Your task to perform on an android device: turn vacation reply on in the gmail app Image 0: 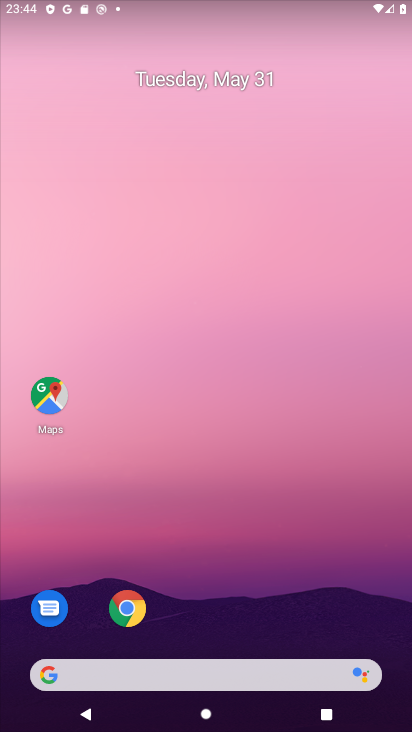
Step 0: drag from (376, 623) to (336, 102)
Your task to perform on an android device: turn vacation reply on in the gmail app Image 1: 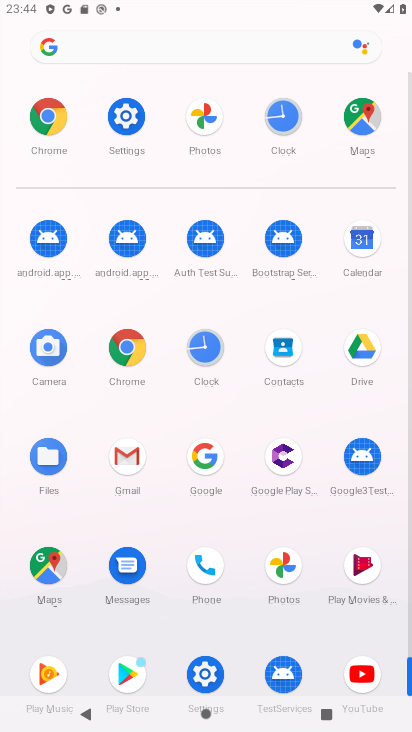
Step 1: click (130, 450)
Your task to perform on an android device: turn vacation reply on in the gmail app Image 2: 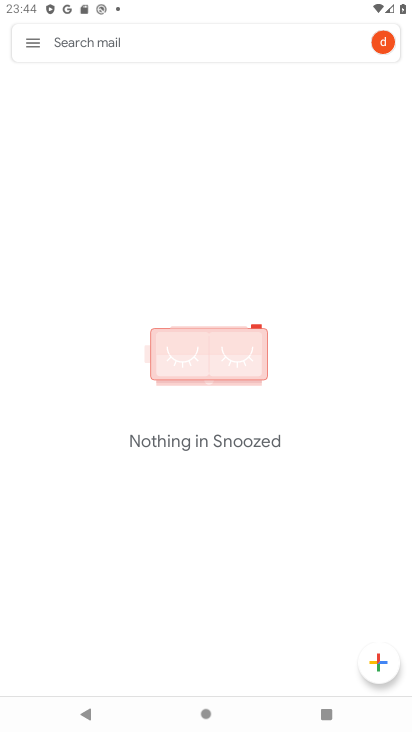
Step 2: click (44, 45)
Your task to perform on an android device: turn vacation reply on in the gmail app Image 3: 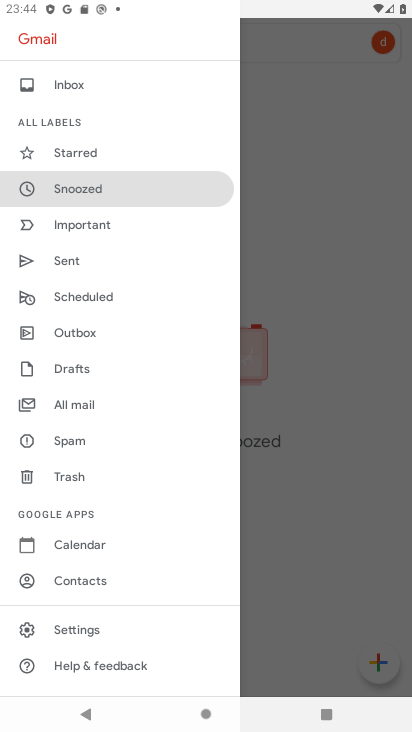
Step 3: click (70, 639)
Your task to perform on an android device: turn vacation reply on in the gmail app Image 4: 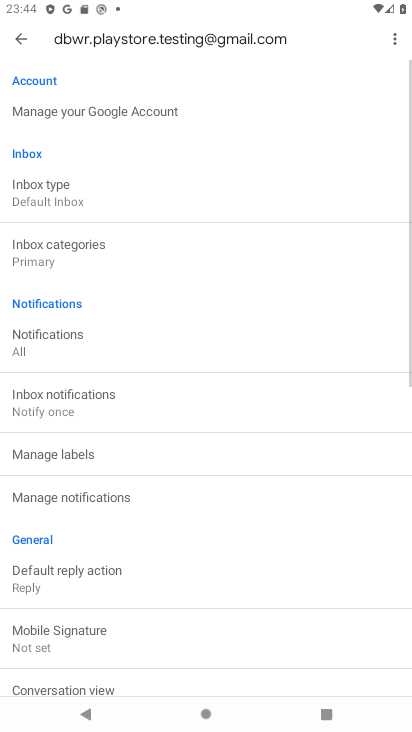
Step 4: drag from (90, 601) to (94, 103)
Your task to perform on an android device: turn vacation reply on in the gmail app Image 5: 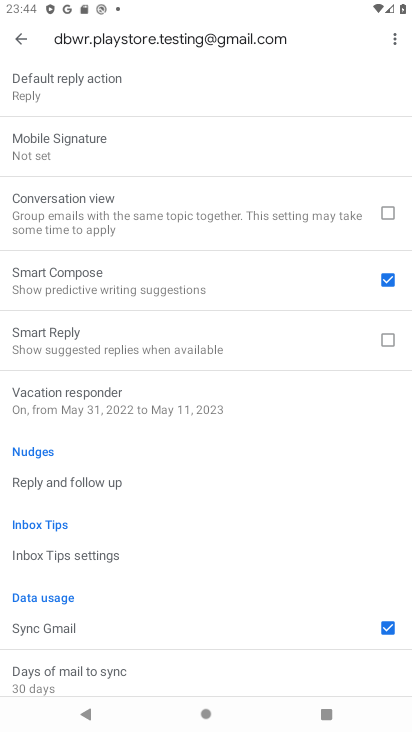
Step 5: click (66, 397)
Your task to perform on an android device: turn vacation reply on in the gmail app Image 6: 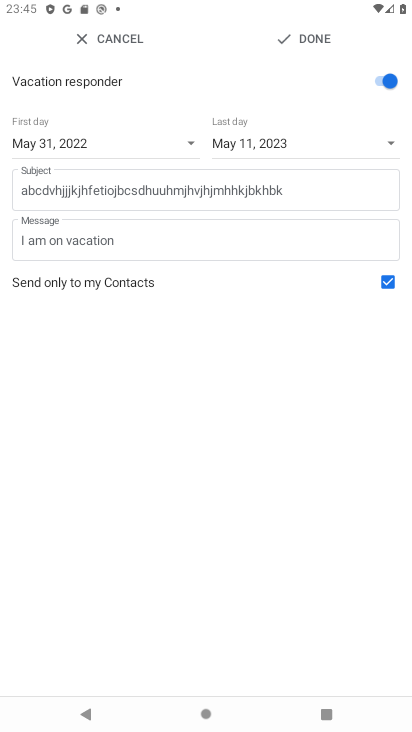
Step 6: click (192, 140)
Your task to perform on an android device: turn vacation reply on in the gmail app Image 7: 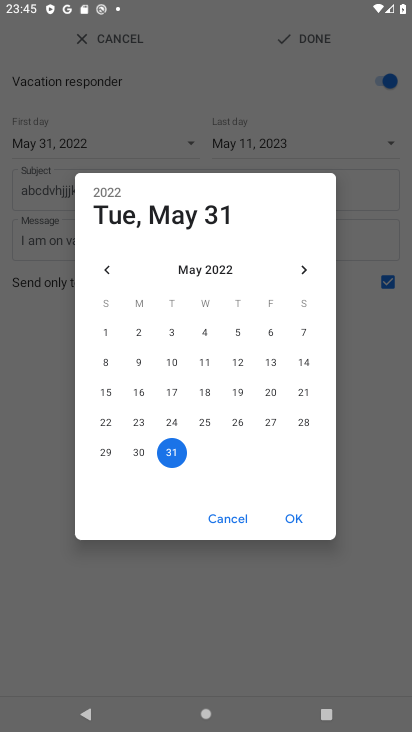
Step 7: drag from (269, 356) to (35, 358)
Your task to perform on an android device: turn vacation reply on in the gmail app Image 8: 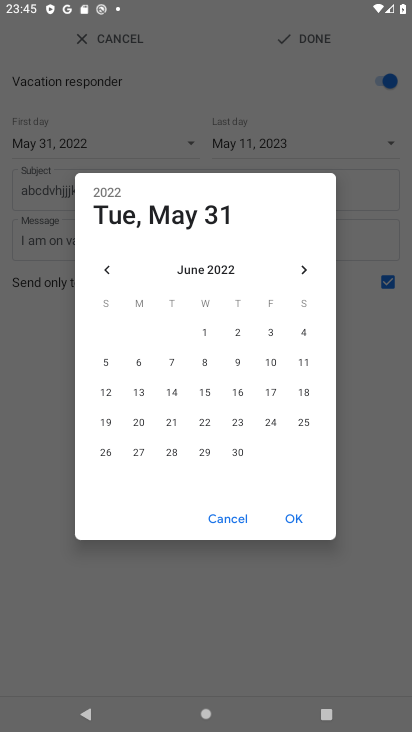
Step 8: click (196, 336)
Your task to perform on an android device: turn vacation reply on in the gmail app Image 9: 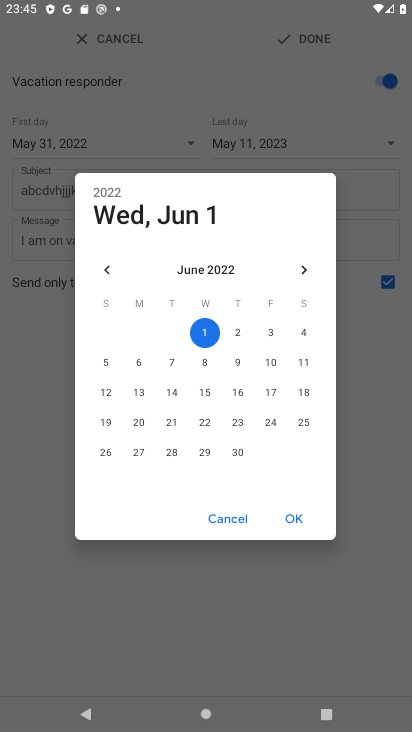
Step 9: click (284, 523)
Your task to perform on an android device: turn vacation reply on in the gmail app Image 10: 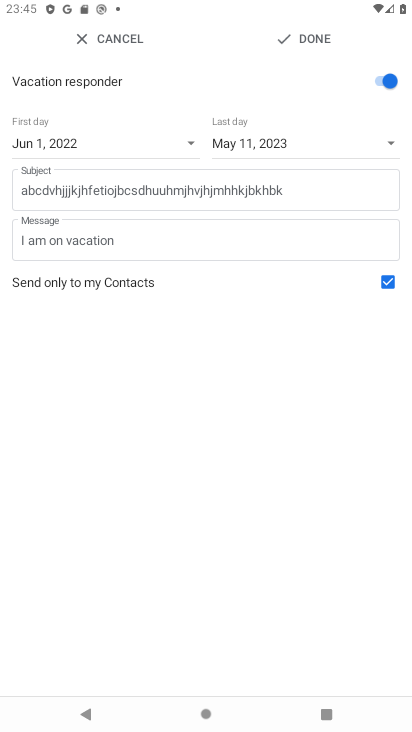
Step 10: click (307, 33)
Your task to perform on an android device: turn vacation reply on in the gmail app Image 11: 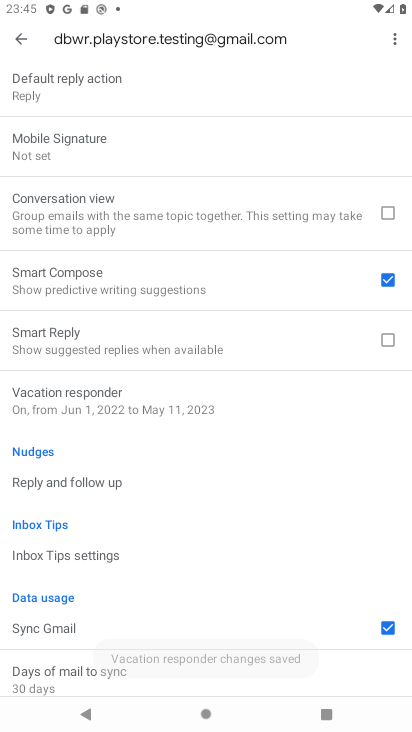
Step 11: task complete